Your task to perform on an android device: see sites visited before in the chrome app Image 0: 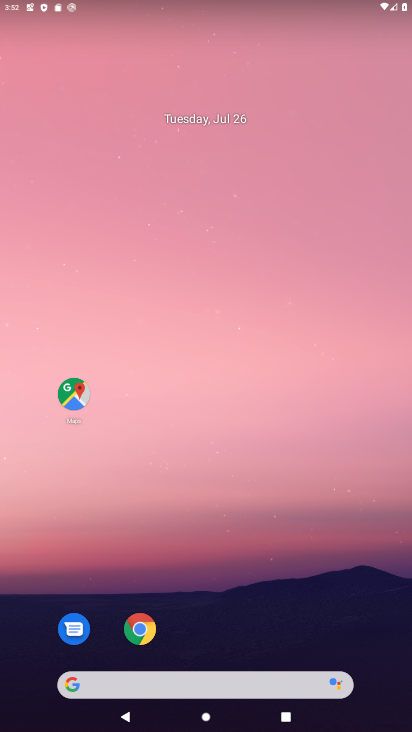
Step 0: click (150, 628)
Your task to perform on an android device: see sites visited before in the chrome app Image 1: 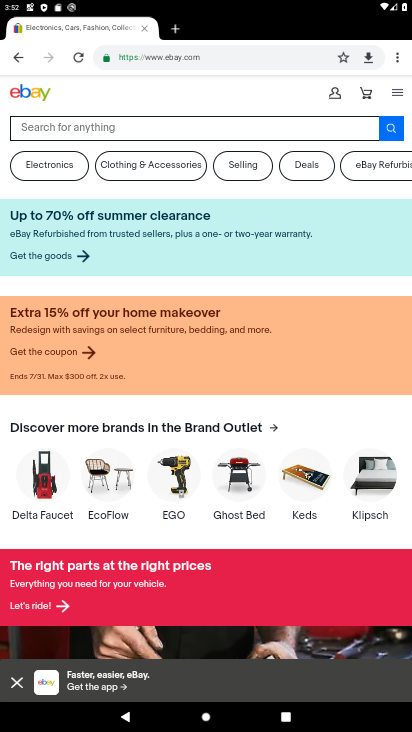
Step 1: click (390, 56)
Your task to perform on an android device: see sites visited before in the chrome app Image 2: 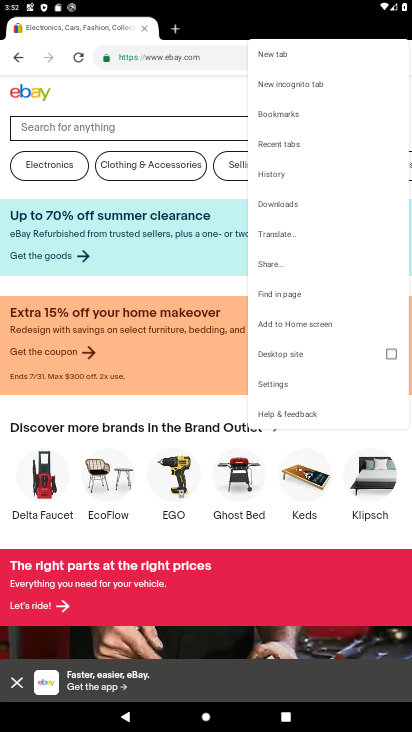
Step 2: click (293, 175)
Your task to perform on an android device: see sites visited before in the chrome app Image 3: 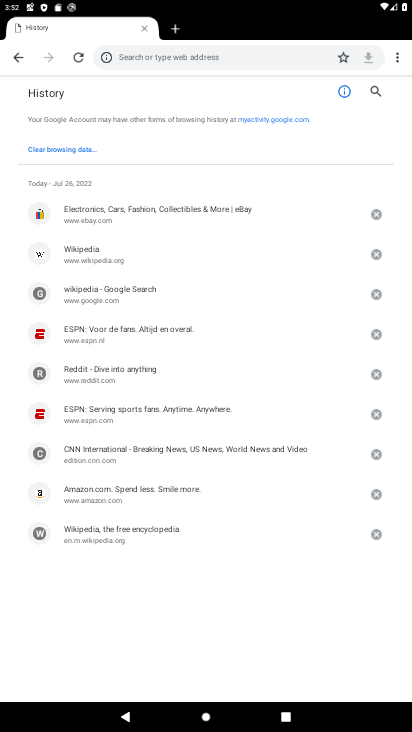
Step 3: task complete